Your task to perform on an android device: Open settings on Google Maps Image 0: 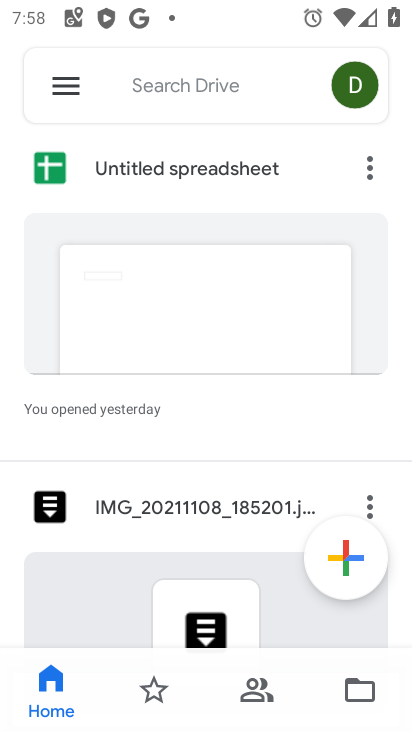
Step 0: press home button
Your task to perform on an android device: Open settings on Google Maps Image 1: 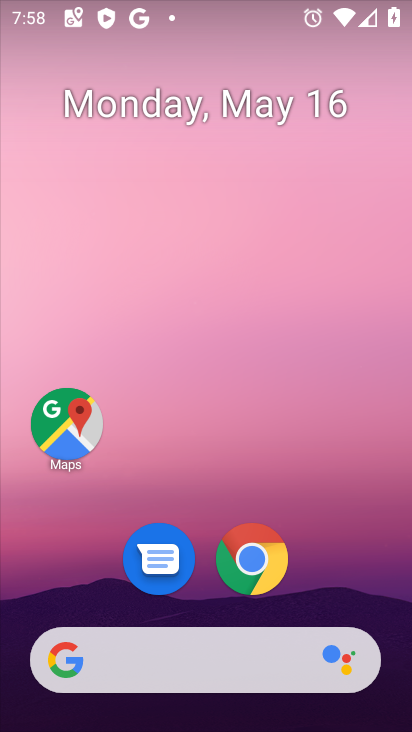
Step 1: drag from (351, 541) to (345, 243)
Your task to perform on an android device: Open settings on Google Maps Image 2: 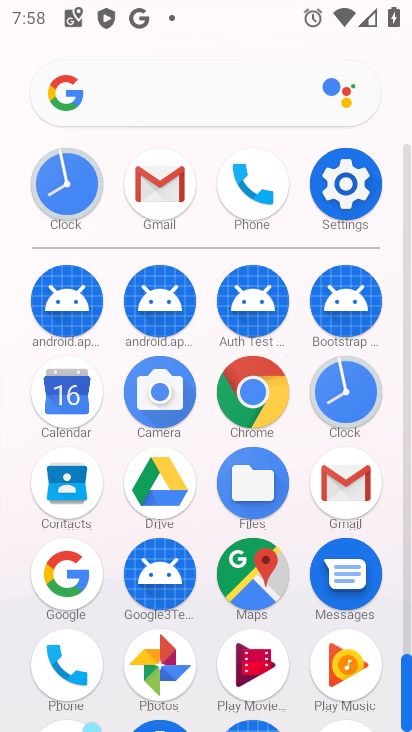
Step 2: click (253, 600)
Your task to perform on an android device: Open settings on Google Maps Image 3: 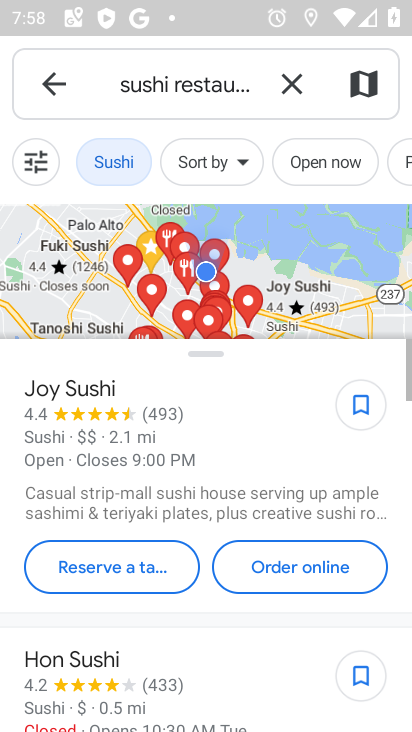
Step 3: click (38, 89)
Your task to perform on an android device: Open settings on Google Maps Image 4: 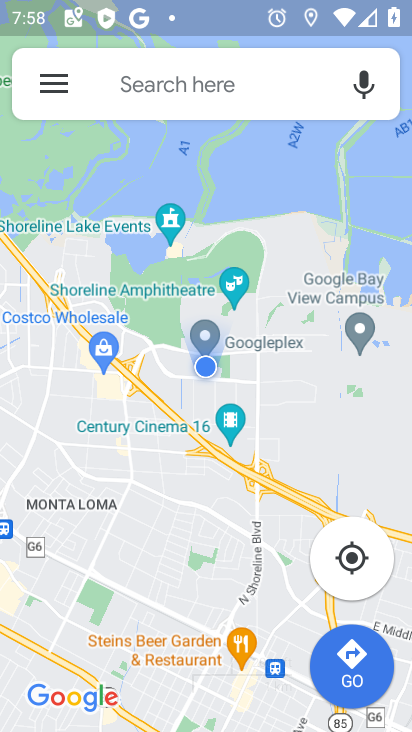
Step 4: click (42, 77)
Your task to perform on an android device: Open settings on Google Maps Image 5: 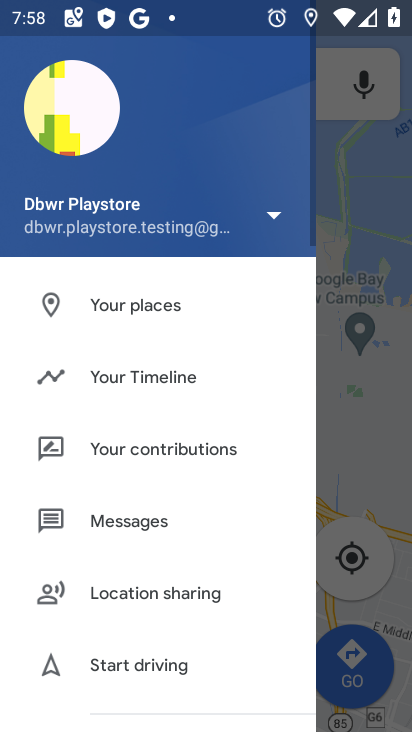
Step 5: click (88, 372)
Your task to perform on an android device: Open settings on Google Maps Image 6: 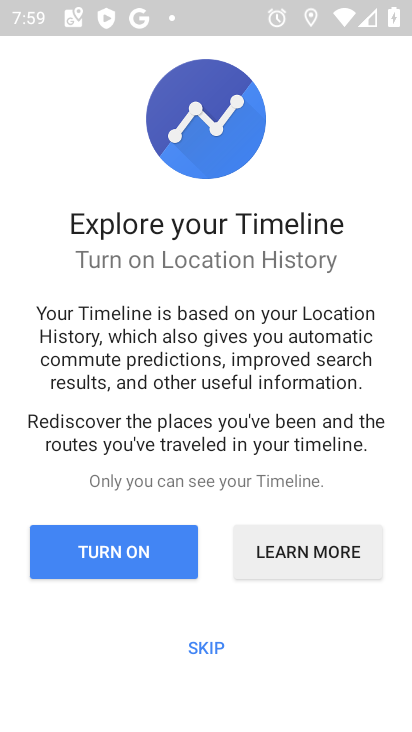
Step 6: click (208, 647)
Your task to perform on an android device: Open settings on Google Maps Image 7: 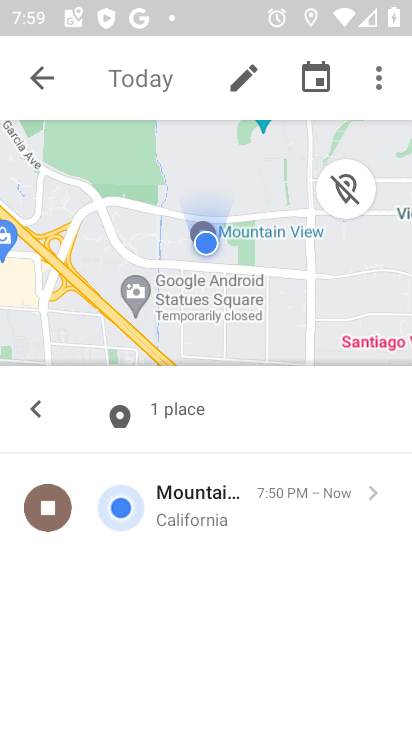
Step 7: task complete